Your task to perform on an android device: Go to settings Image 0: 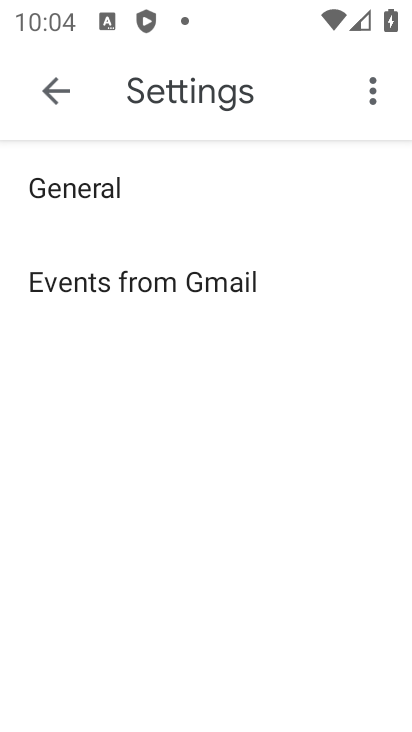
Step 0: press home button
Your task to perform on an android device: Go to settings Image 1: 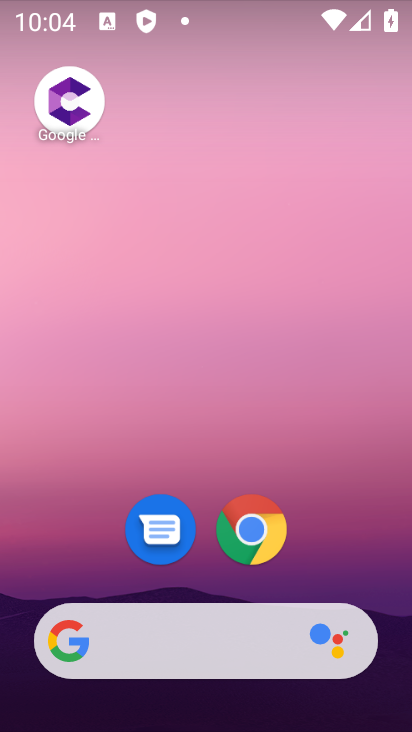
Step 1: drag from (260, 579) to (268, 218)
Your task to perform on an android device: Go to settings Image 2: 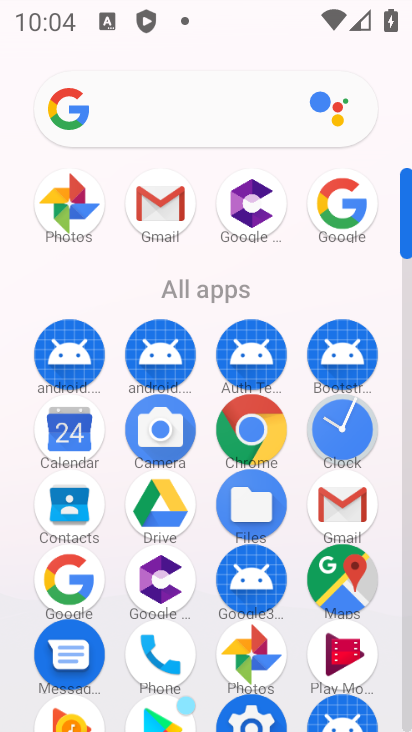
Step 2: drag from (325, 558) to (362, 272)
Your task to perform on an android device: Go to settings Image 3: 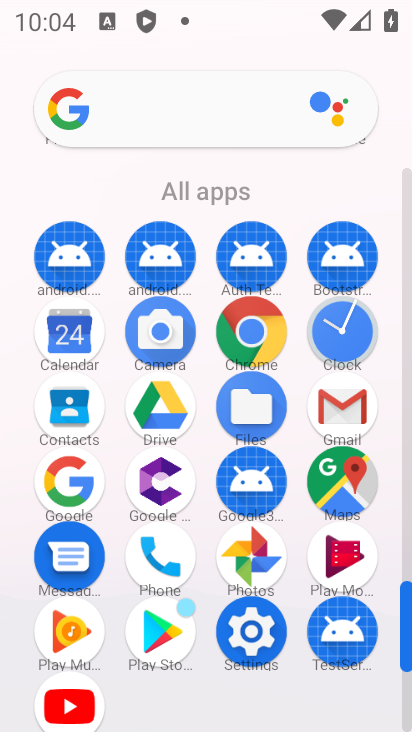
Step 3: click (260, 639)
Your task to perform on an android device: Go to settings Image 4: 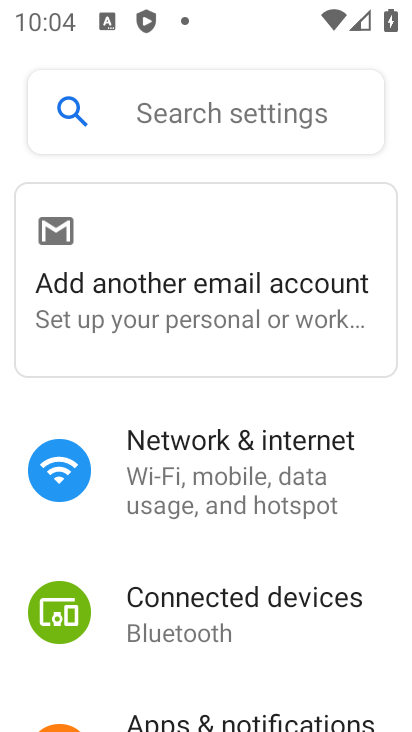
Step 4: task complete